Your task to perform on an android device: Go to notification settings Image 0: 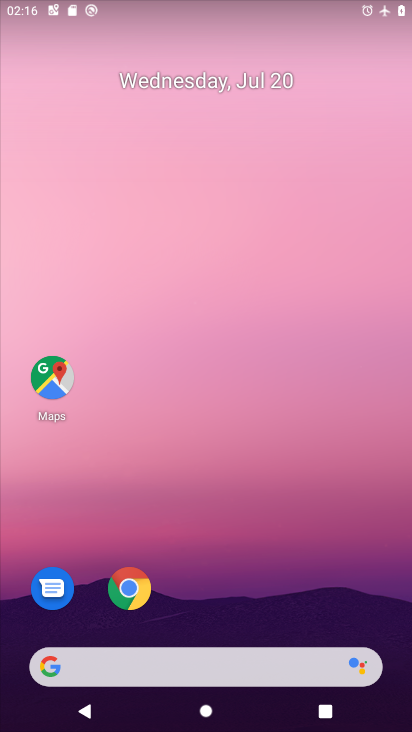
Step 0: drag from (290, 595) to (298, 146)
Your task to perform on an android device: Go to notification settings Image 1: 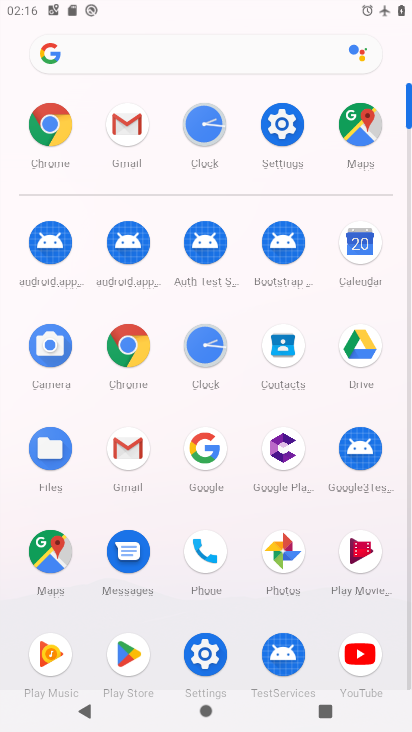
Step 1: click (283, 127)
Your task to perform on an android device: Go to notification settings Image 2: 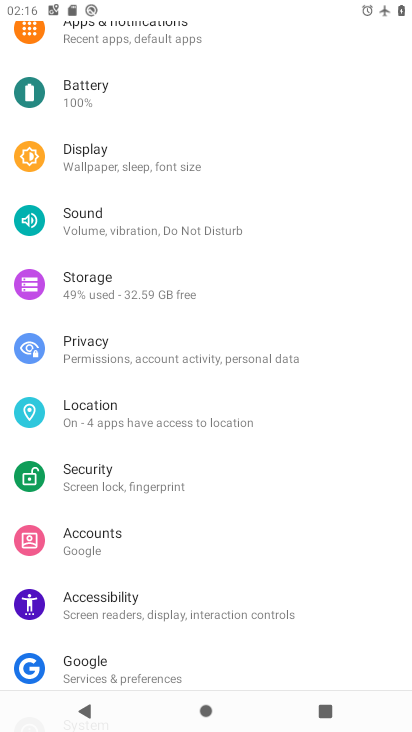
Step 2: drag from (147, 158) to (147, 518)
Your task to perform on an android device: Go to notification settings Image 3: 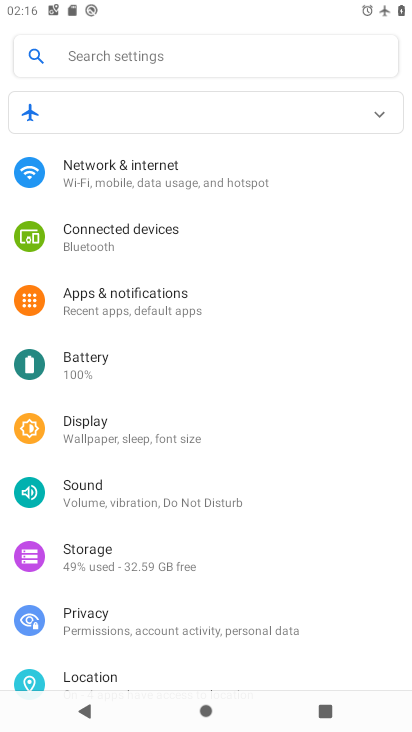
Step 3: click (172, 299)
Your task to perform on an android device: Go to notification settings Image 4: 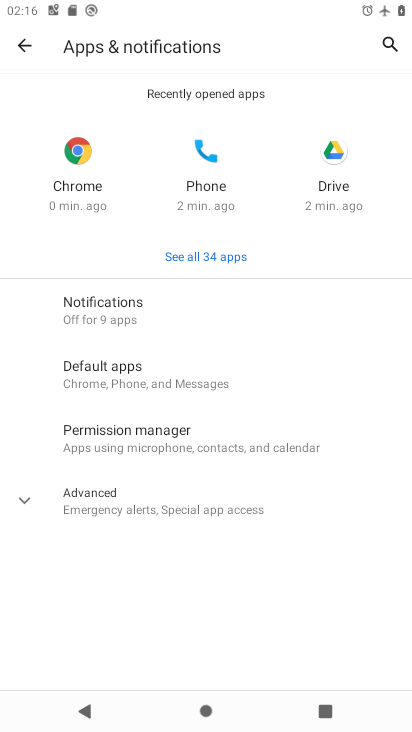
Step 4: click (145, 305)
Your task to perform on an android device: Go to notification settings Image 5: 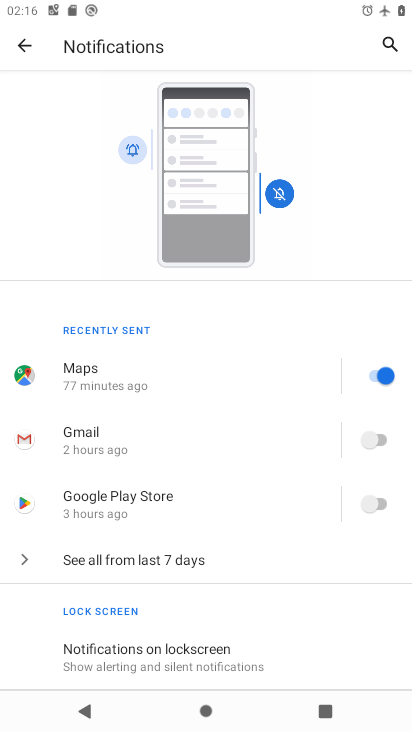
Step 5: task complete